Your task to perform on an android device: Open internet settings Image 0: 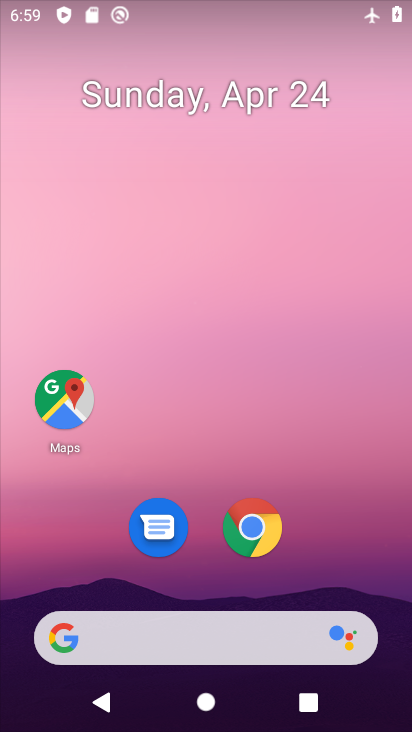
Step 0: drag from (359, 576) to (275, 38)
Your task to perform on an android device: Open internet settings Image 1: 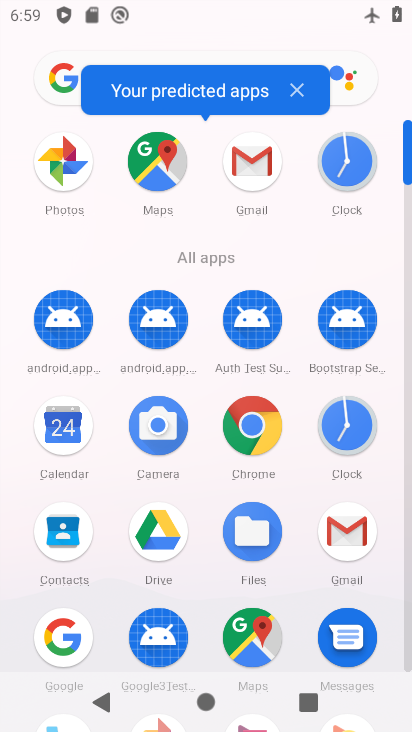
Step 1: click (407, 665)
Your task to perform on an android device: Open internet settings Image 2: 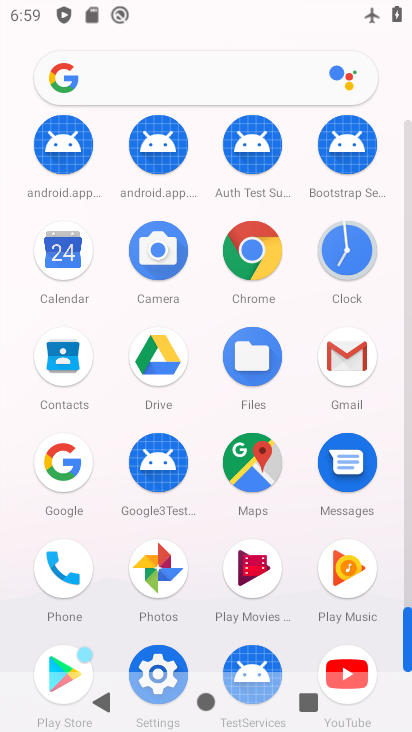
Step 2: click (156, 653)
Your task to perform on an android device: Open internet settings Image 3: 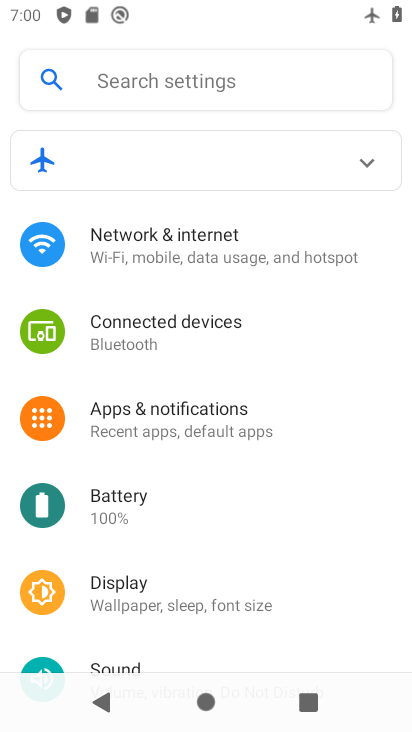
Step 3: click (225, 244)
Your task to perform on an android device: Open internet settings Image 4: 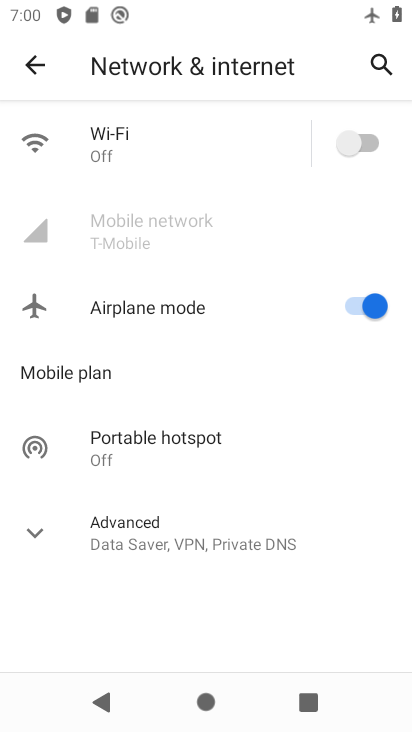
Step 4: task complete